Your task to perform on an android device: clear all cookies in the chrome app Image 0: 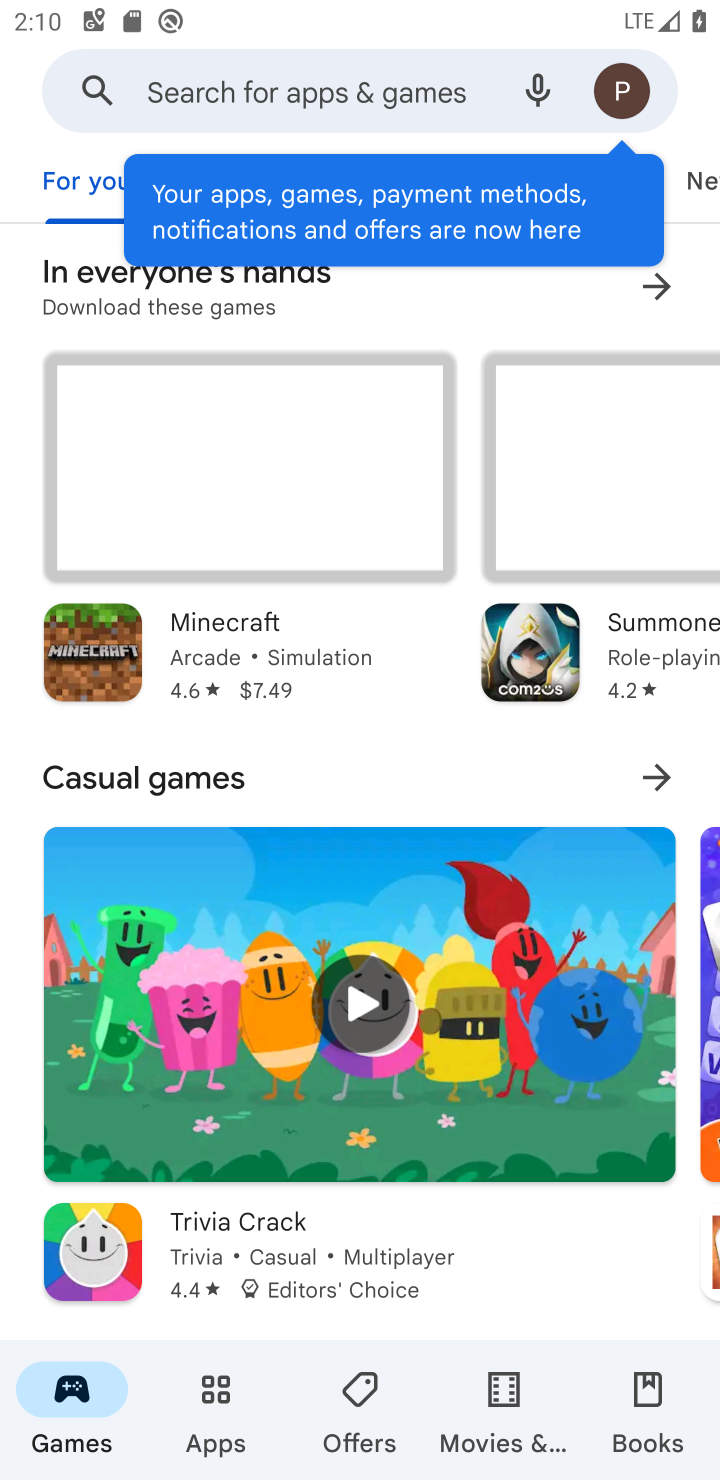
Step 0: press home button
Your task to perform on an android device: clear all cookies in the chrome app Image 1: 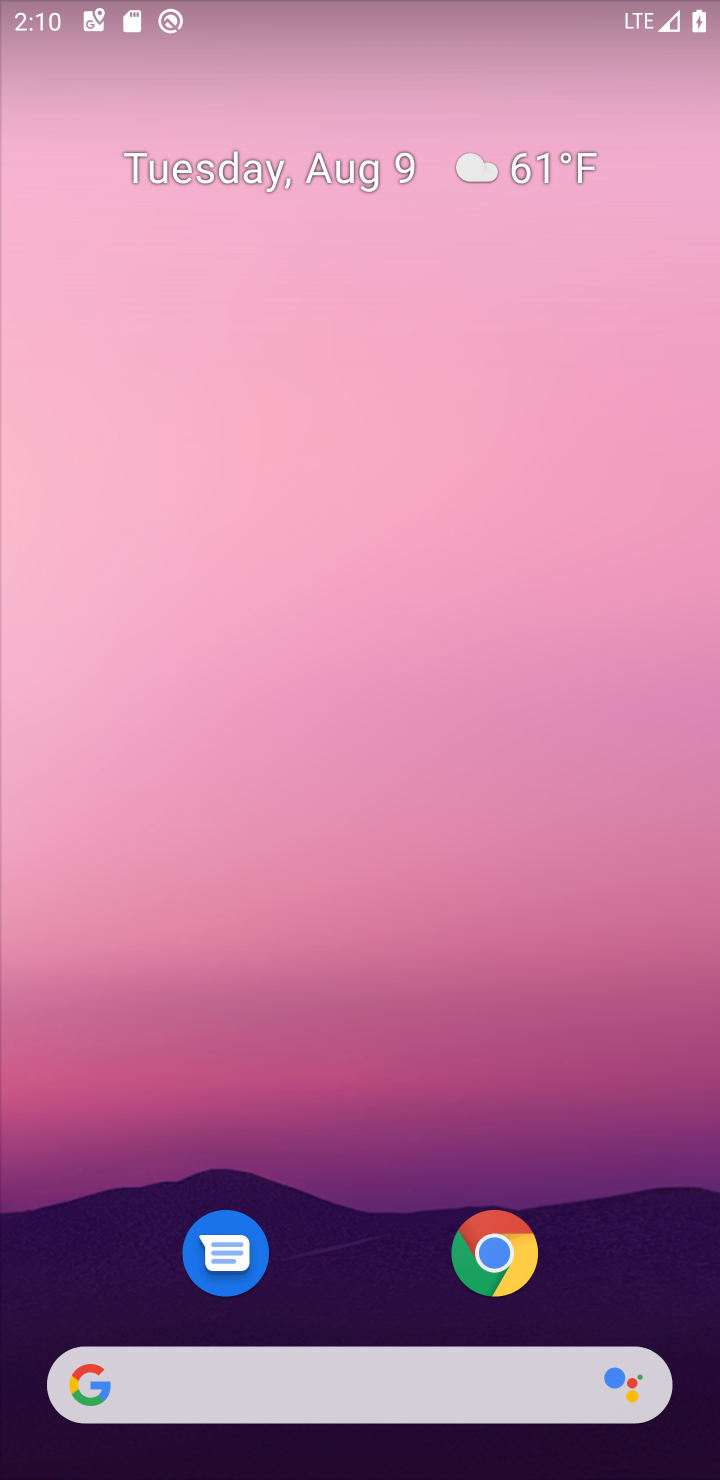
Step 1: drag from (654, 1260) to (307, 93)
Your task to perform on an android device: clear all cookies in the chrome app Image 2: 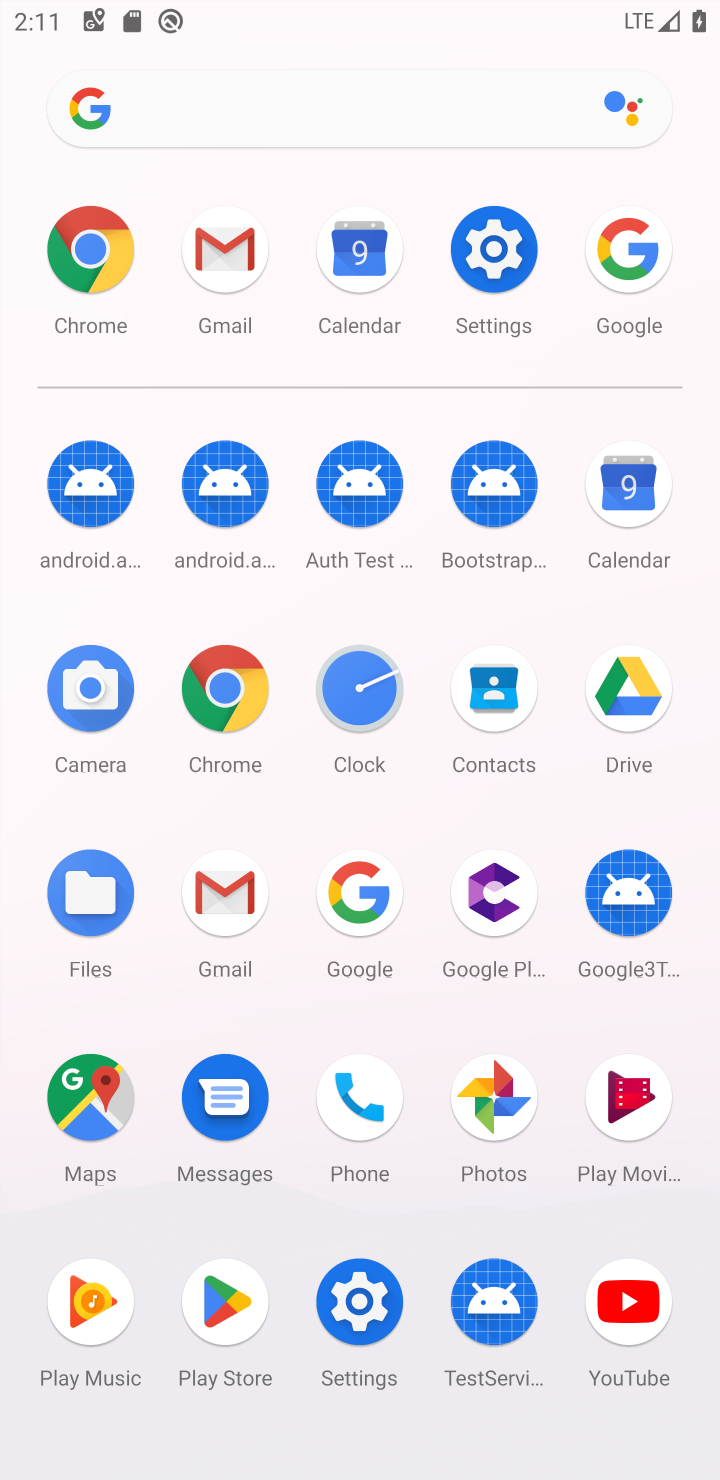
Step 2: click (240, 649)
Your task to perform on an android device: clear all cookies in the chrome app Image 3: 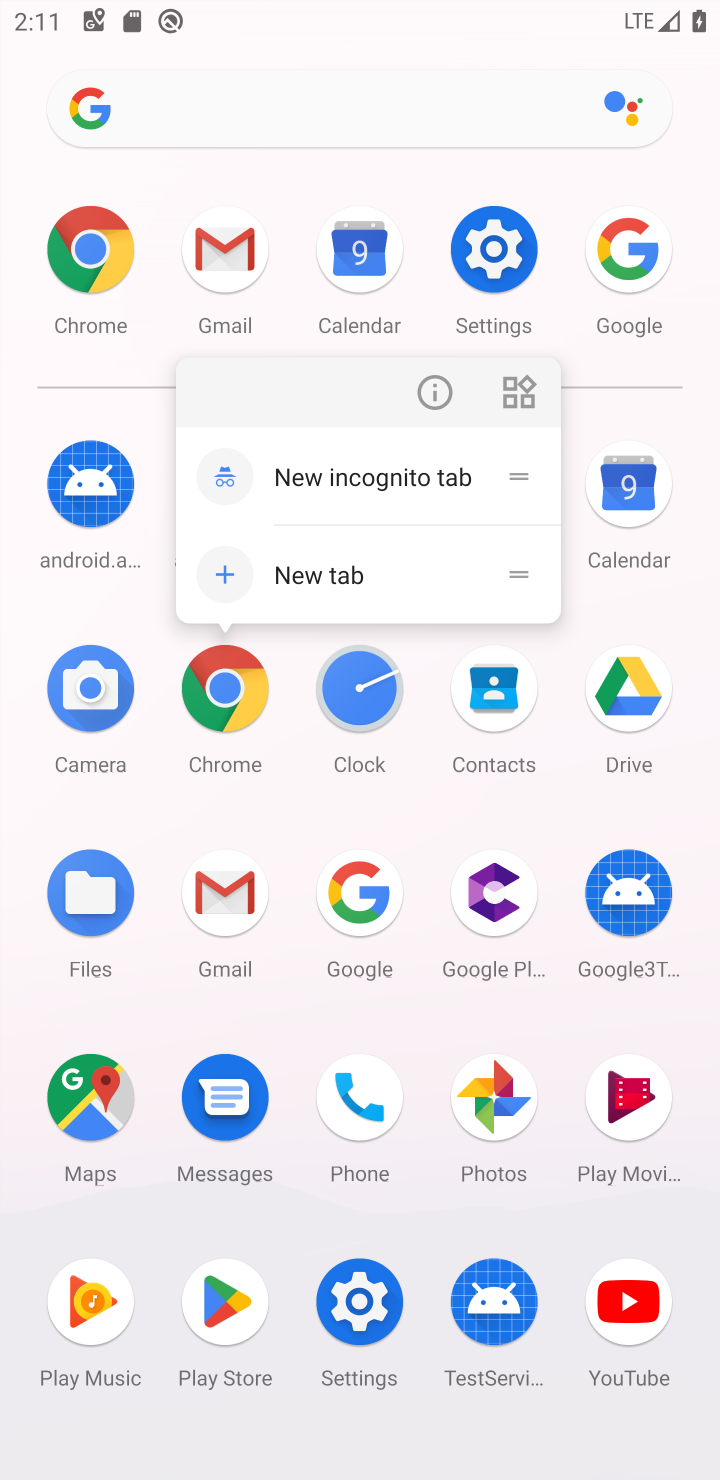
Step 3: click (236, 680)
Your task to perform on an android device: clear all cookies in the chrome app Image 4: 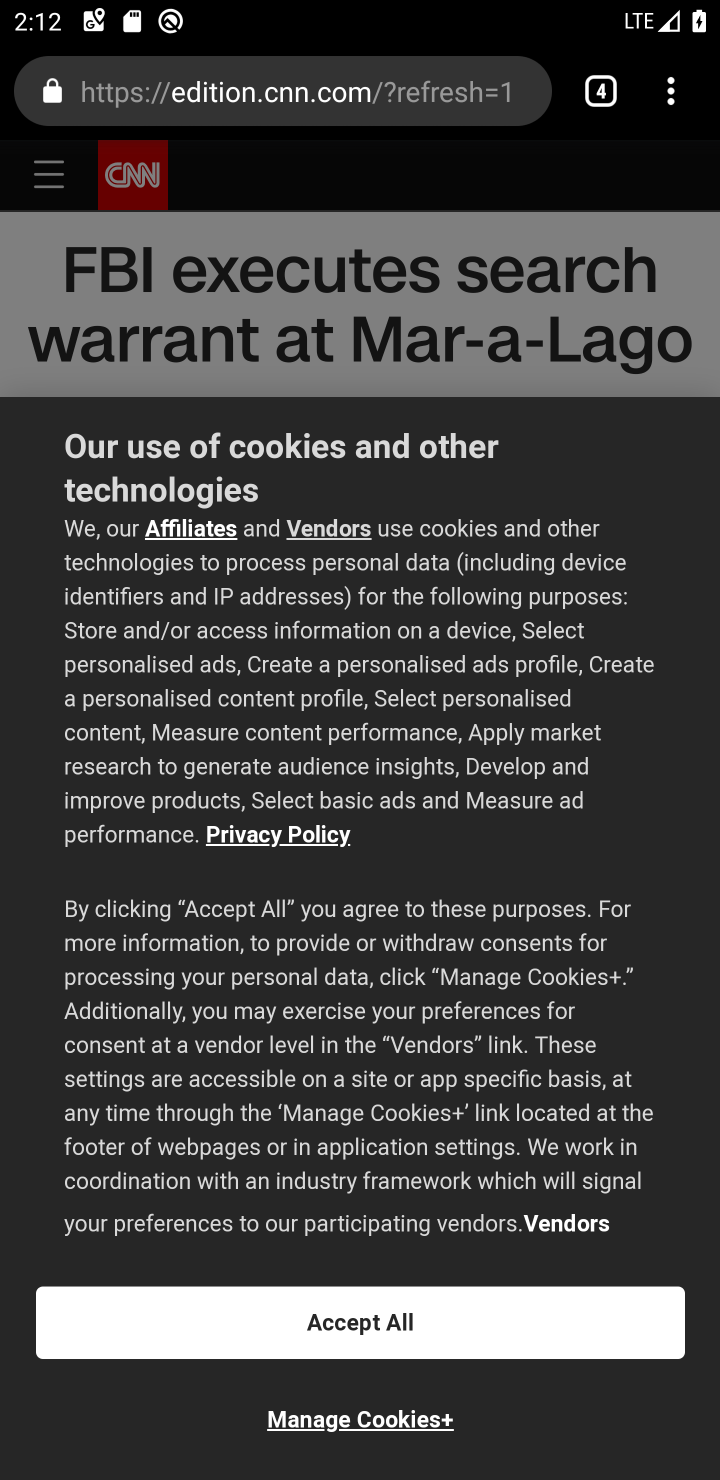
Step 4: click (683, 91)
Your task to perform on an android device: clear all cookies in the chrome app Image 5: 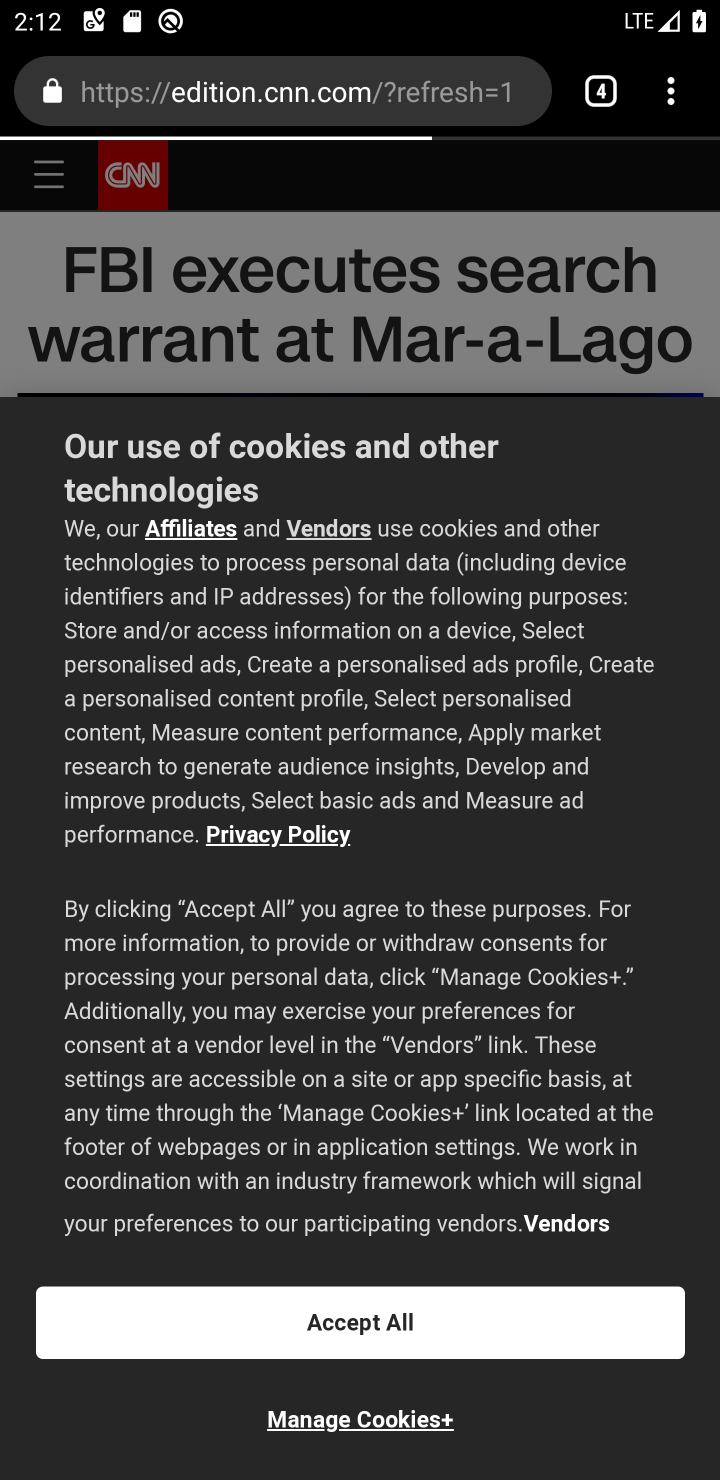
Step 5: click (676, 88)
Your task to perform on an android device: clear all cookies in the chrome app Image 6: 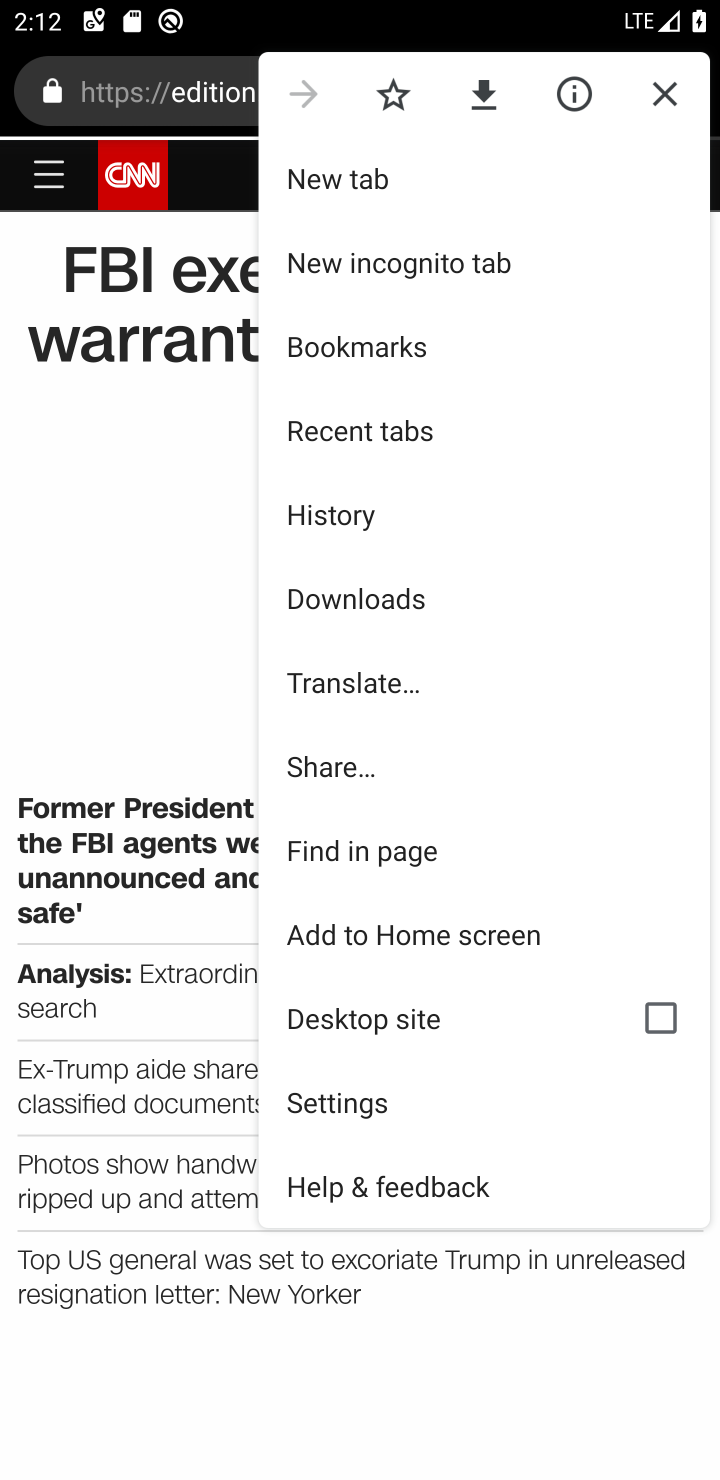
Step 6: click (325, 515)
Your task to perform on an android device: clear all cookies in the chrome app Image 7: 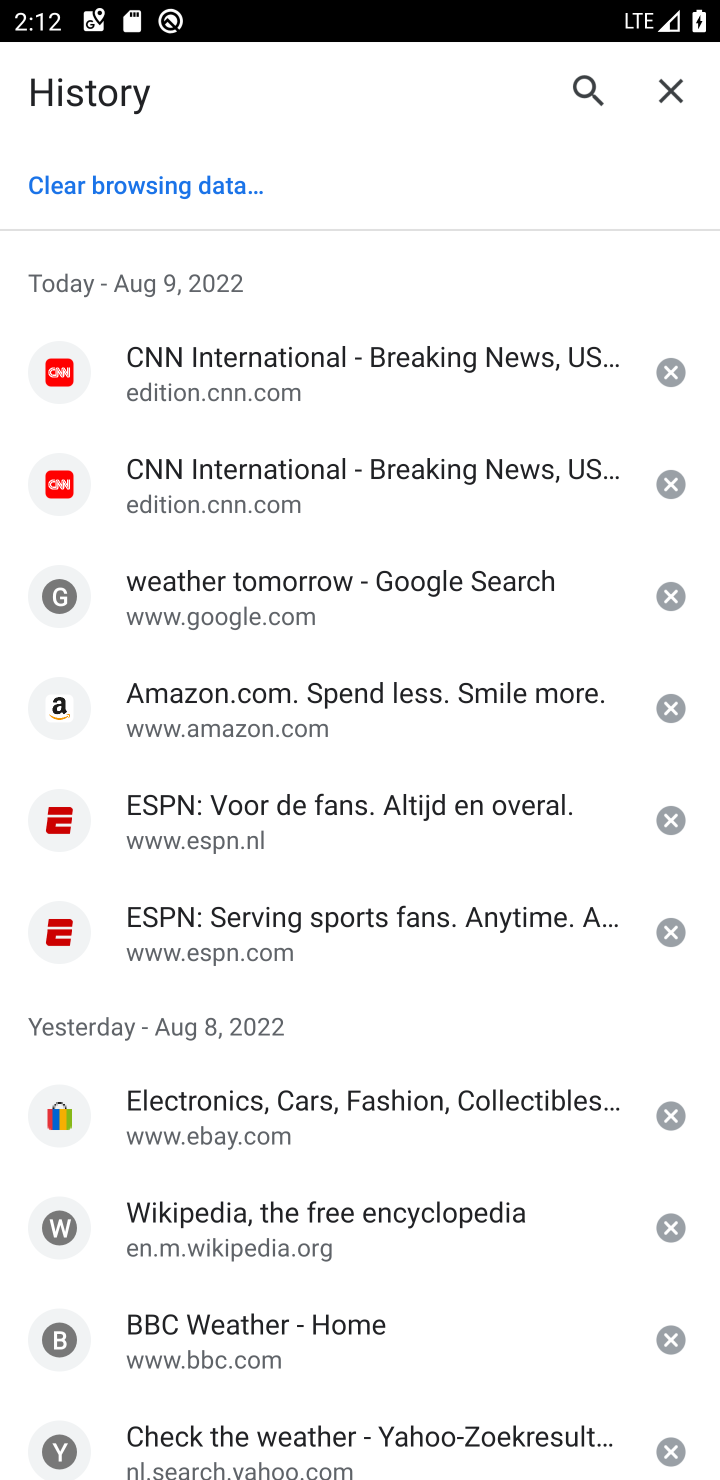
Step 7: click (137, 191)
Your task to perform on an android device: clear all cookies in the chrome app Image 8: 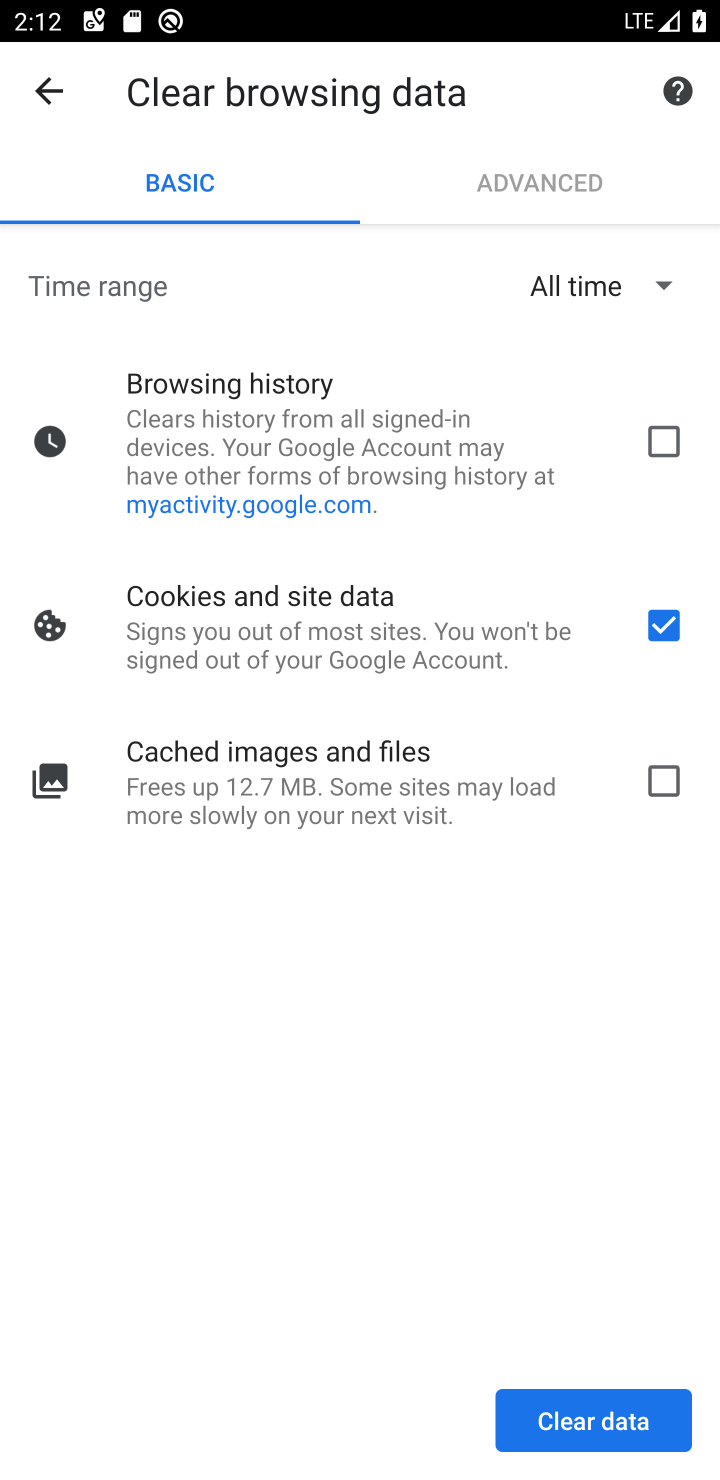
Step 8: click (530, 455)
Your task to perform on an android device: clear all cookies in the chrome app Image 9: 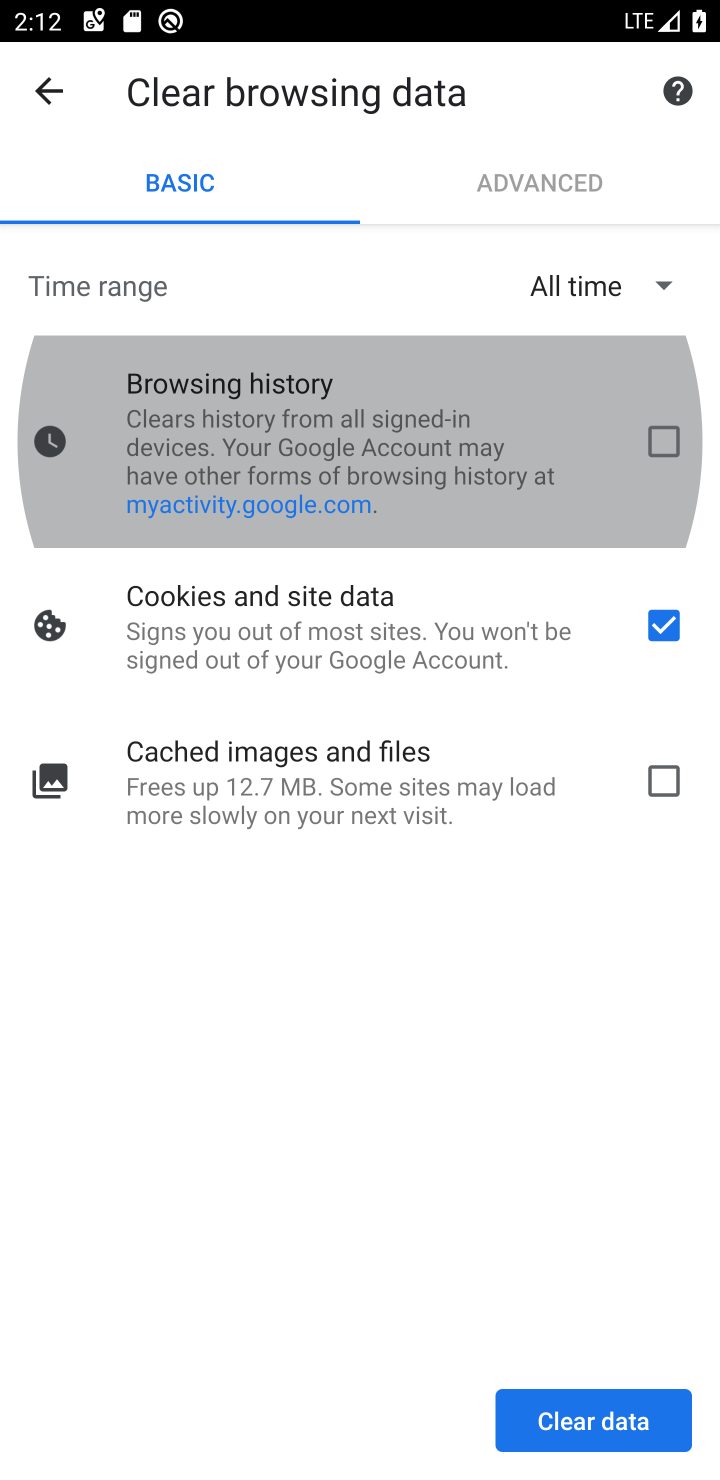
Step 9: click (572, 1434)
Your task to perform on an android device: clear all cookies in the chrome app Image 10: 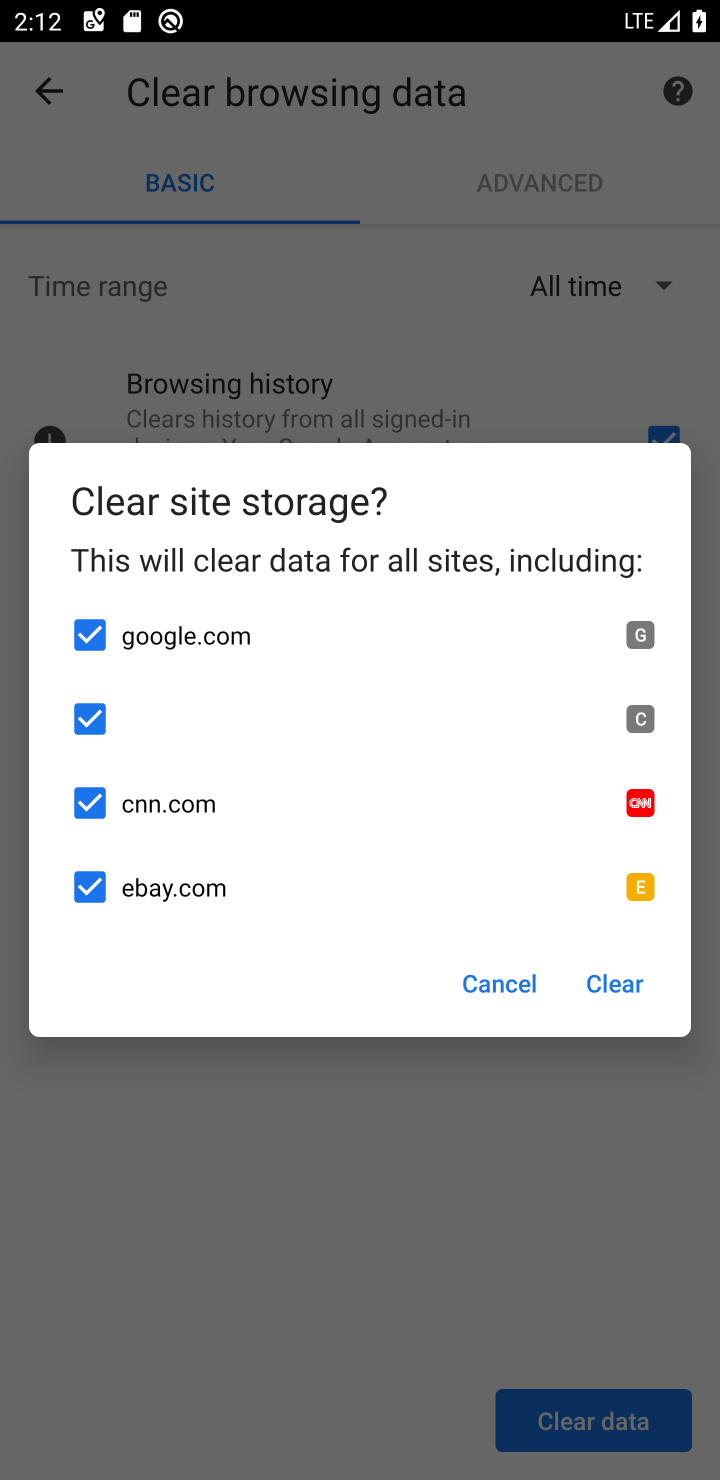
Step 10: click (589, 974)
Your task to perform on an android device: clear all cookies in the chrome app Image 11: 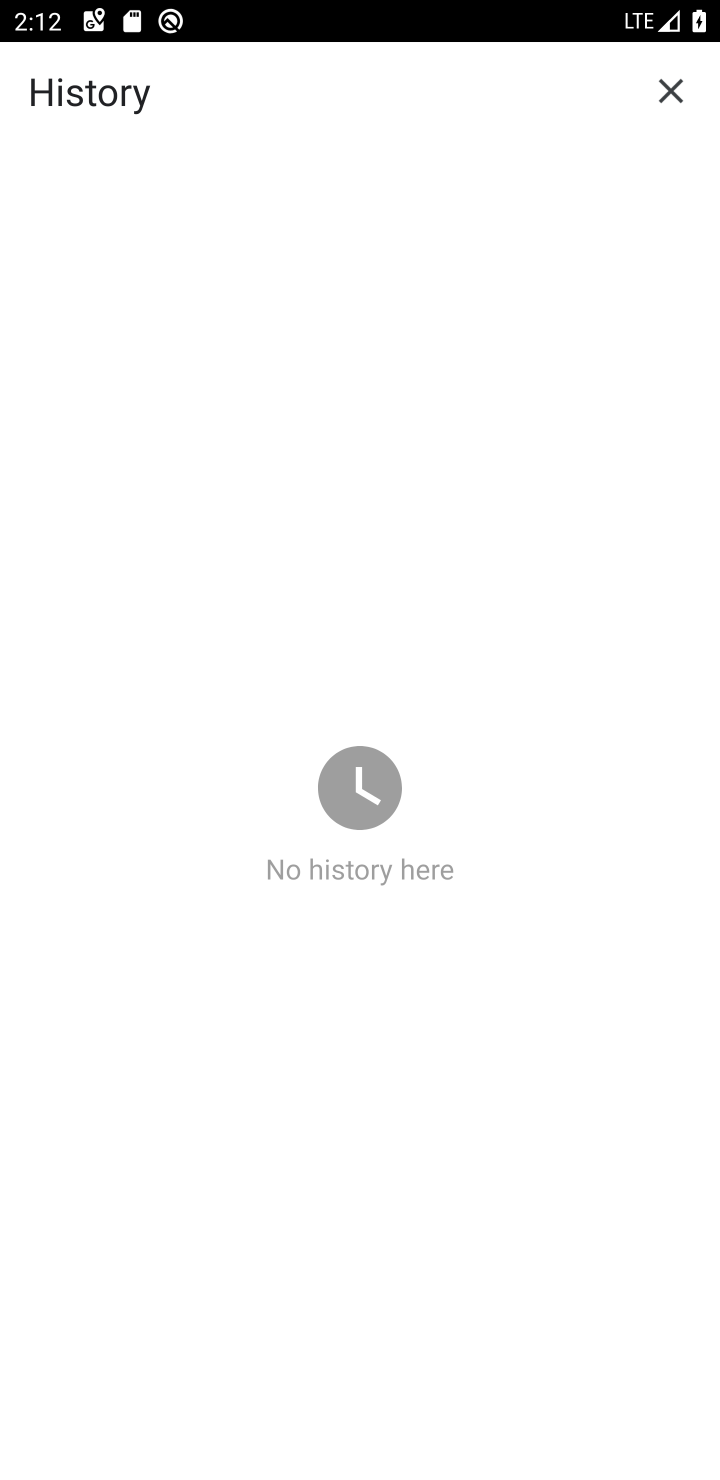
Step 11: task complete